Your task to perform on an android device: add a contact in the contacts app Image 0: 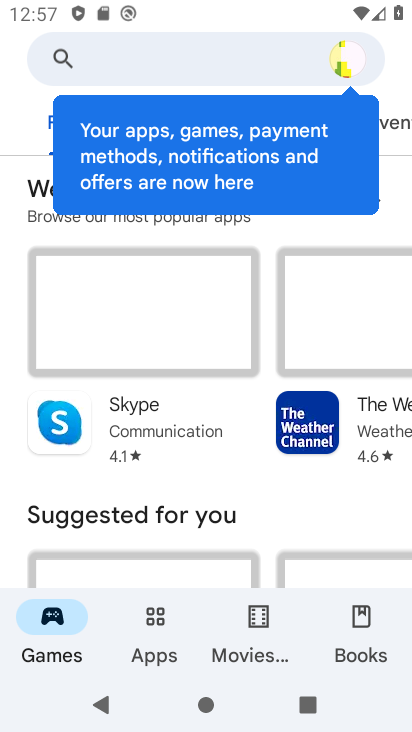
Step 0: press home button
Your task to perform on an android device: add a contact in the contacts app Image 1: 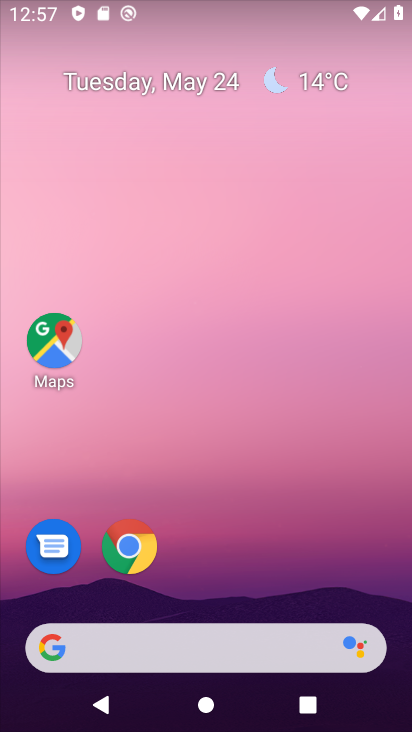
Step 1: drag from (220, 528) to (235, 137)
Your task to perform on an android device: add a contact in the contacts app Image 2: 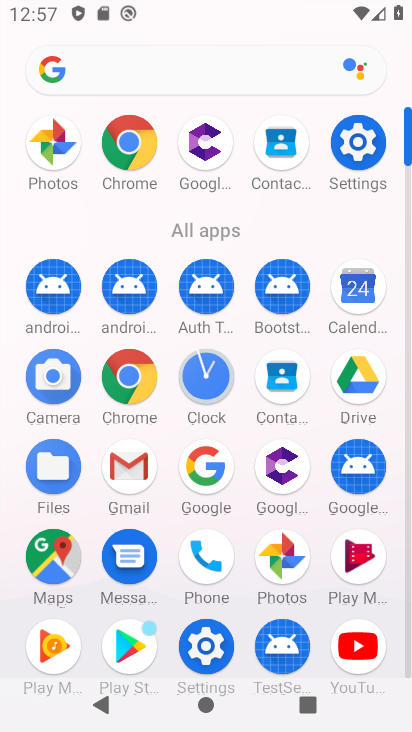
Step 2: click (285, 372)
Your task to perform on an android device: add a contact in the contacts app Image 3: 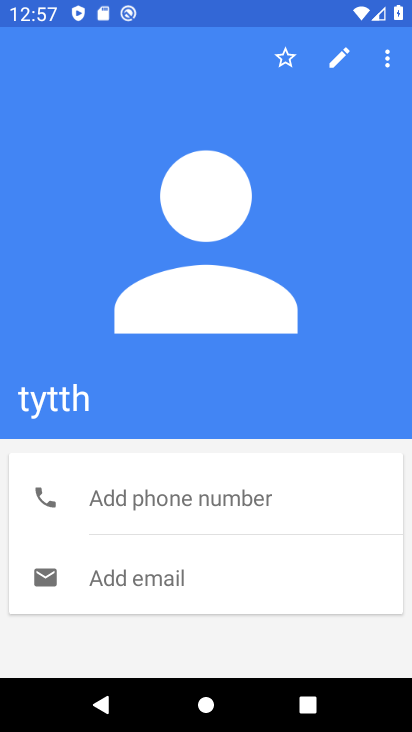
Step 3: press back button
Your task to perform on an android device: add a contact in the contacts app Image 4: 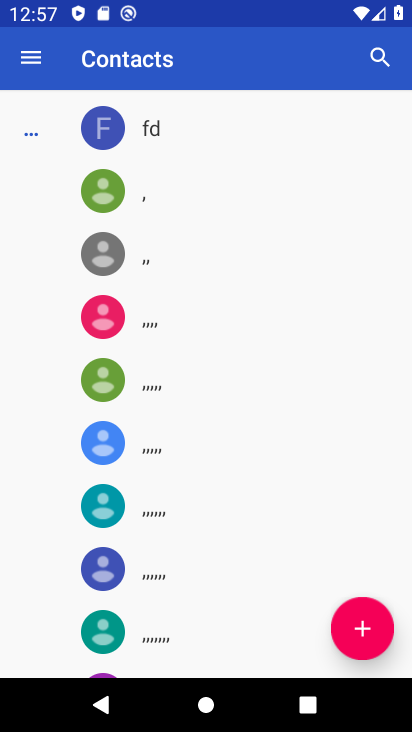
Step 4: click (366, 623)
Your task to perform on an android device: add a contact in the contacts app Image 5: 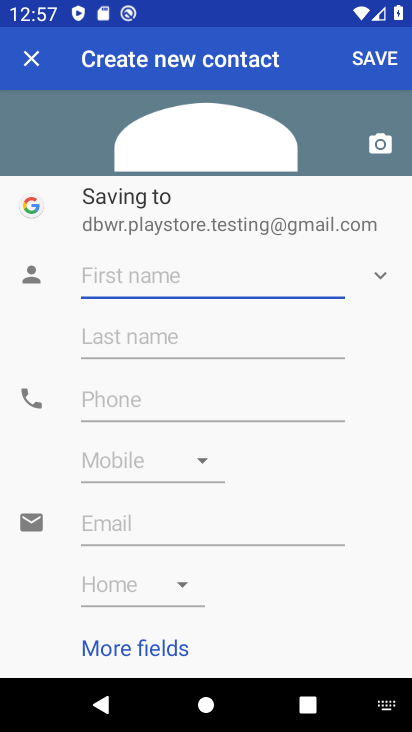
Step 5: type "hgdtgh"
Your task to perform on an android device: add a contact in the contacts app Image 6: 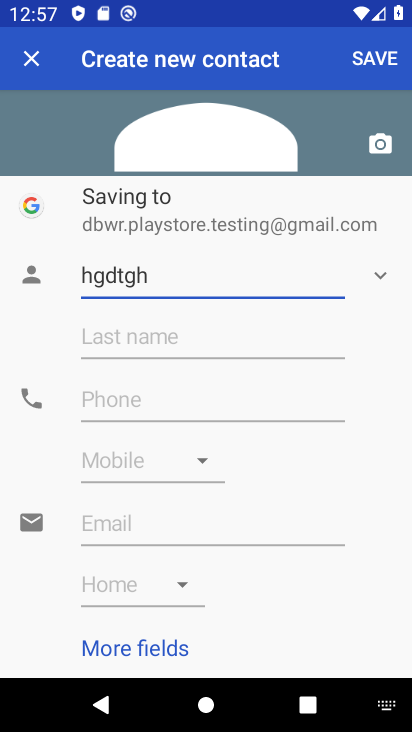
Step 6: click (360, 50)
Your task to perform on an android device: add a contact in the contacts app Image 7: 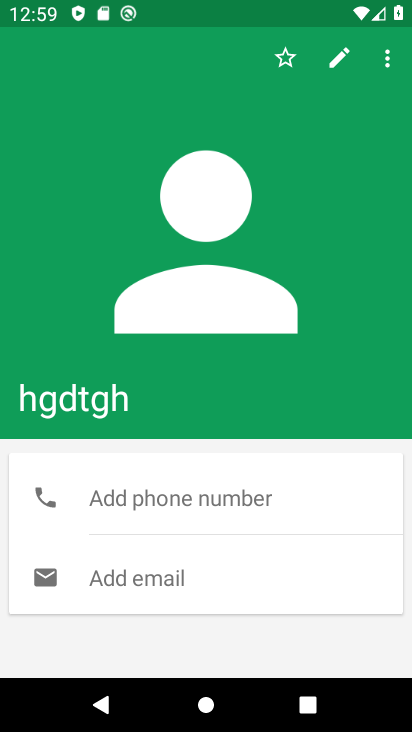
Step 7: task complete